Your task to perform on an android device: Open ESPN.com Image 0: 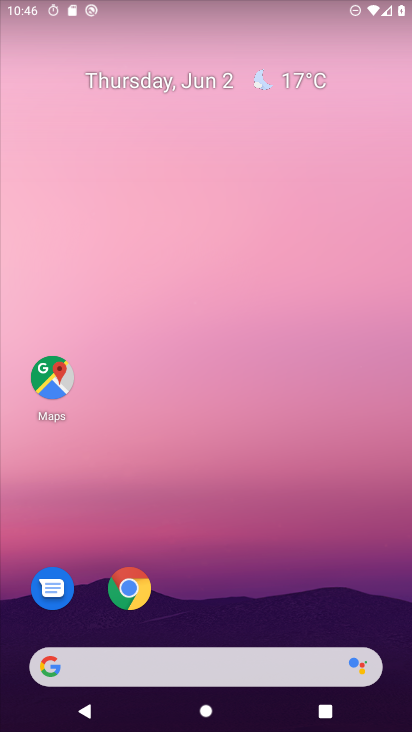
Step 0: drag from (231, 463) to (261, 321)
Your task to perform on an android device: Open ESPN.com Image 1: 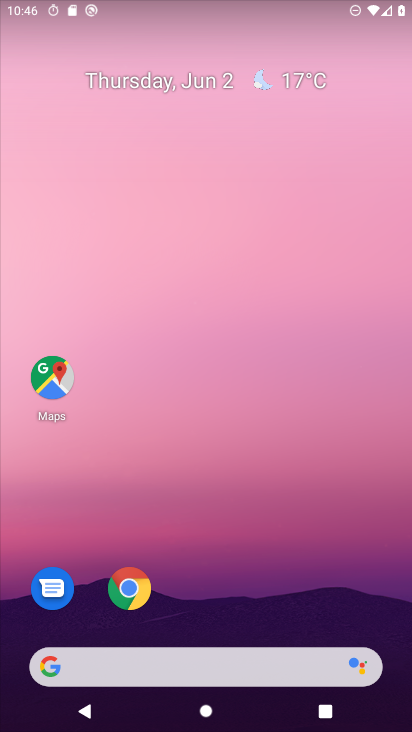
Step 1: click (128, 590)
Your task to perform on an android device: Open ESPN.com Image 2: 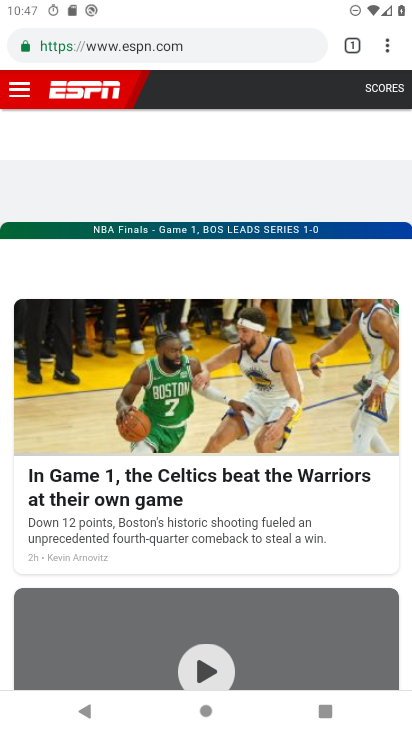
Step 2: task complete